Your task to perform on an android device: Go to wifi settings Image 0: 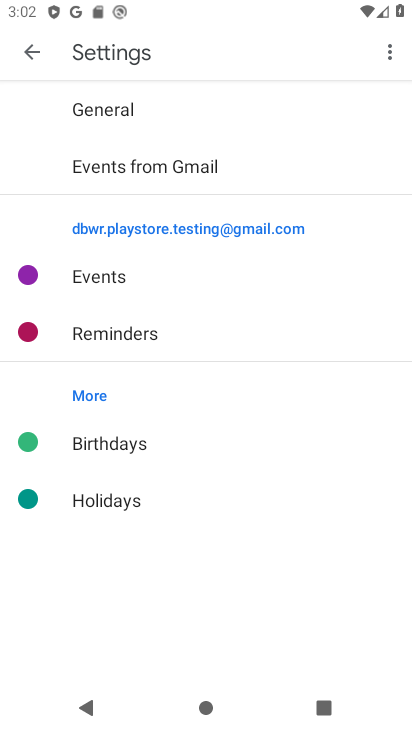
Step 0: press home button
Your task to perform on an android device: Go to wifi settings Image 1: 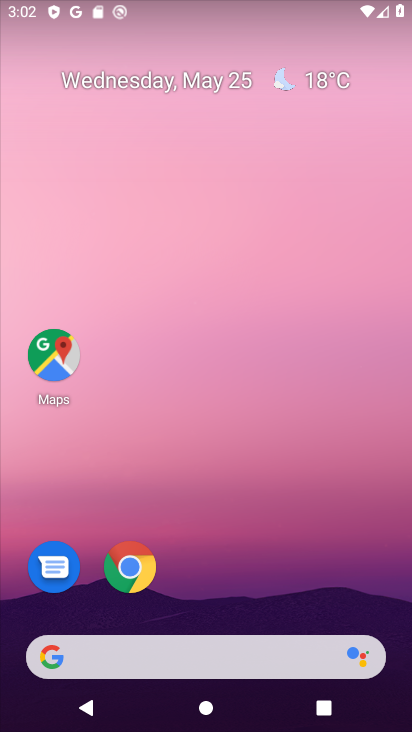
Step 1: drag from (353, 596) to (388, 154)
Your task to perform on an android device: Go to wifi settings Image 2: 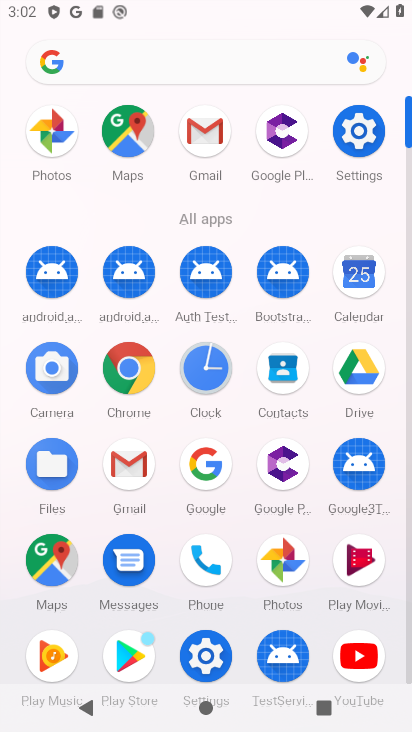
Step 2: click (366, 159)
Your task to perform on an android device: Go to wifi settings Image 3: 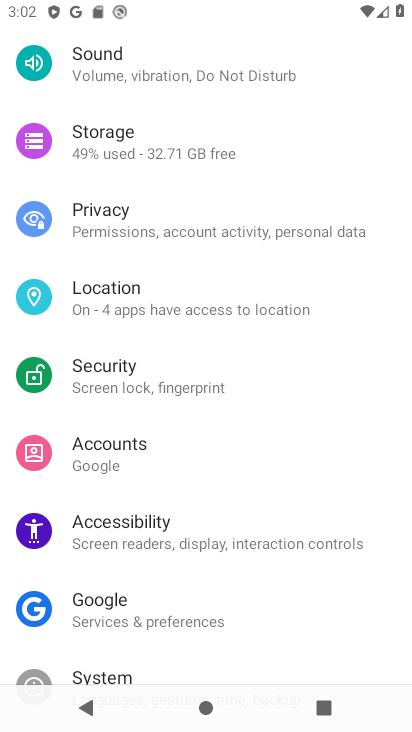
Step 3: drag from (348, 506) to (353, 325)
Your task to perform on an android device: Go to wifi settings Image 4: 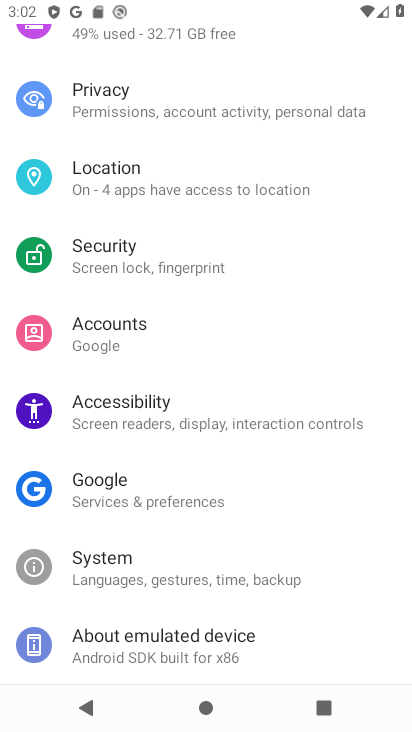
Step 4: drag from (318, 554) to (313, 322)
Your task to perform on an android device: Go to wifi settings Image 5: 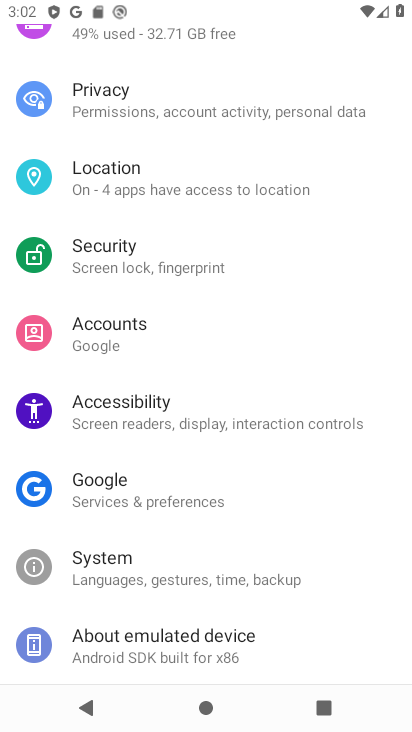
Step 5: drag from (294, 531) to (323, 306)
Your task to perform on an android device: Go to wifi settings Image 6: 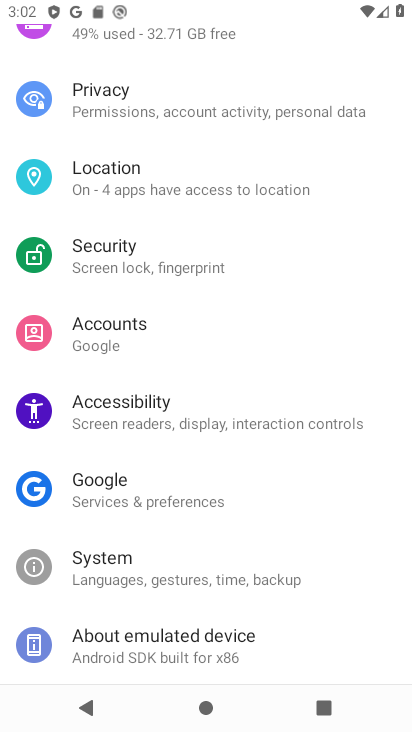
Step 6: drag from (357, 560) to (368, 363)
Your task to perform on an android device: Go to wifi settings Image 7: 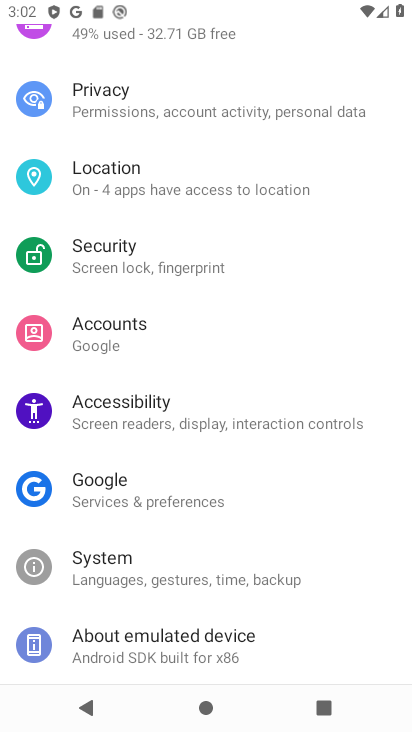
Step 7: drag from (356, 317) to (329, 450)
Your task to perform on an android device: Go to wifi settings Image 8: 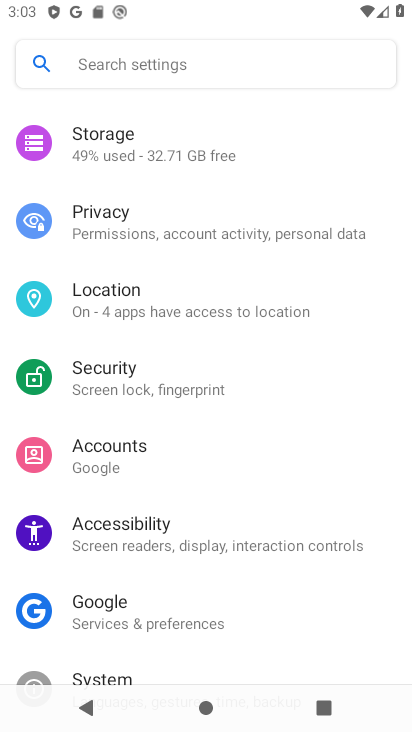
Step 8: drag from (308, 318) to (273, 456)
Your task to perform on an android device: Go to wifi settings Image 9: 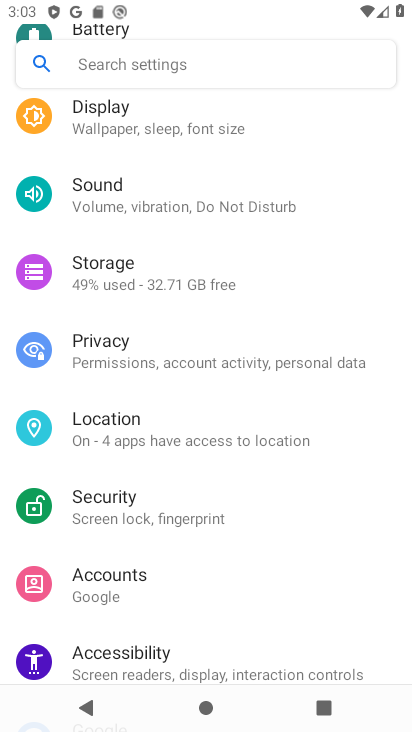
Step 9: drag from (333, 233) to (295, 450)
Your task to perform on an android device: Go to wifi settings Image 10: 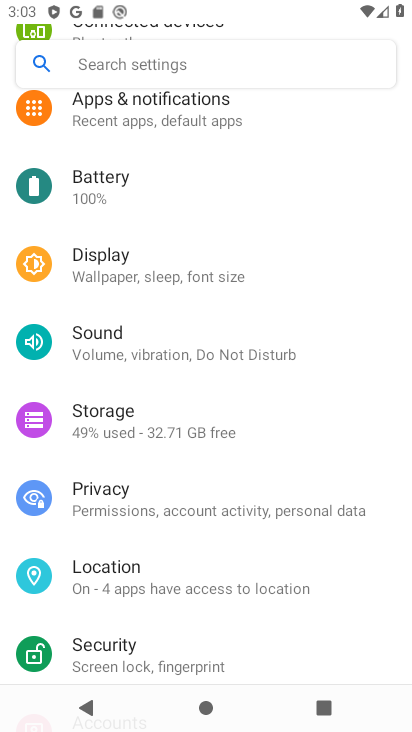
Step 10: drag from (319, 195) to (291, 439)
Your task to perform on an android device: Go to wifi settings Image 11: 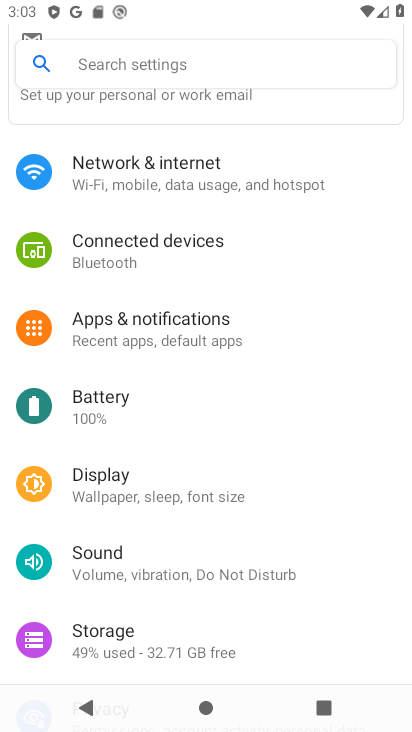
Step 11: click (179, 178)
Your task to perform on an android device: Go to wifi settings Image 12: 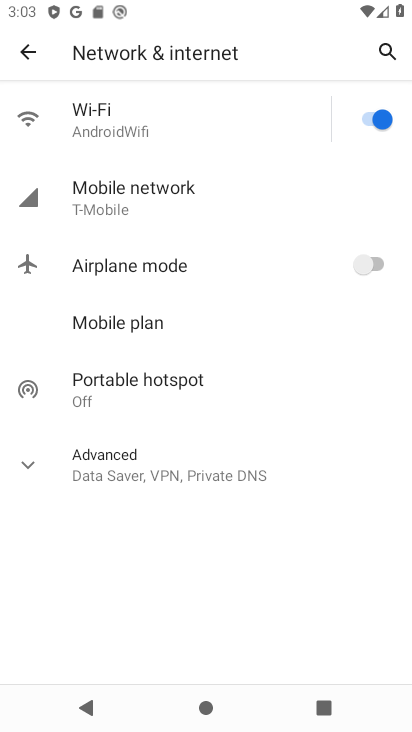
Step 12: click (119, 111)
Your task to perform on an android device: Go to wifi settings Image 13: 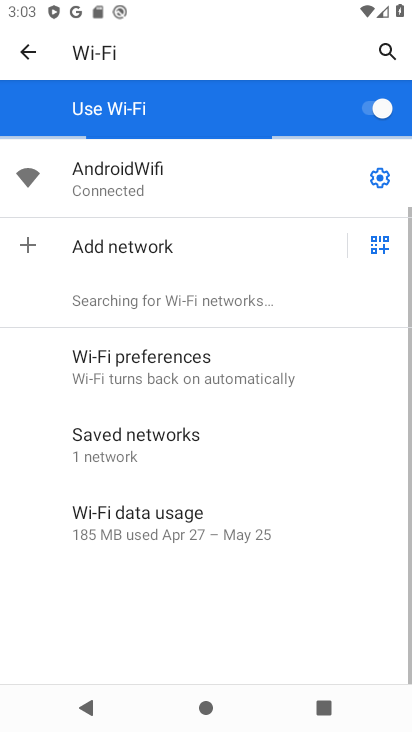
Step 13: task complete